Your task to perform on an android device: open a bookmark in the chrome app Image 0: 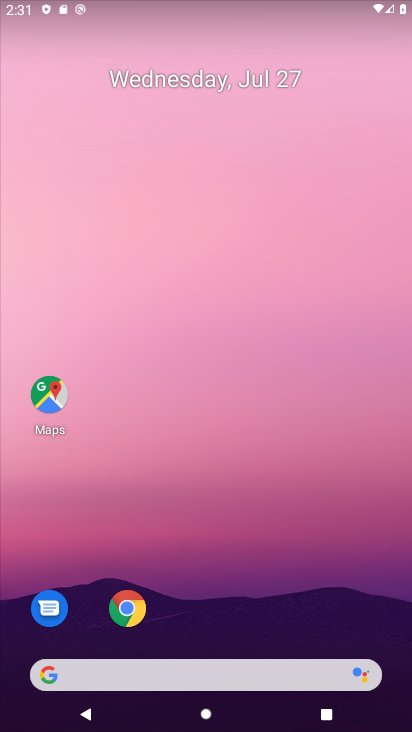
Step 0: click (124, 607)
Your task to perform on an android device: open a bookmark in the chrome app Image 1: 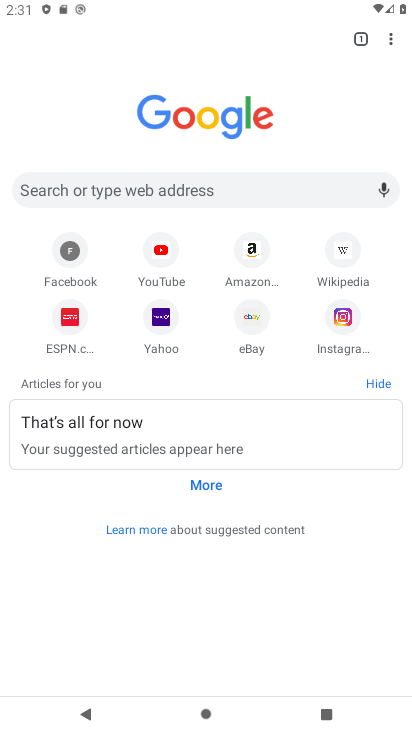
Step 1: click (392, 39)
Your task to perform on an android device: open a bookmark in the chrome app Image 2: 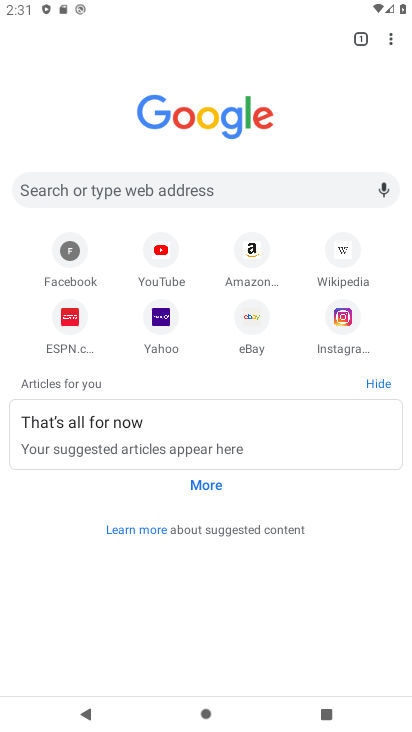
Step 2: click (389, 43)
Your task to perform on an android device: open a bookmark in the chrome app Image 3: 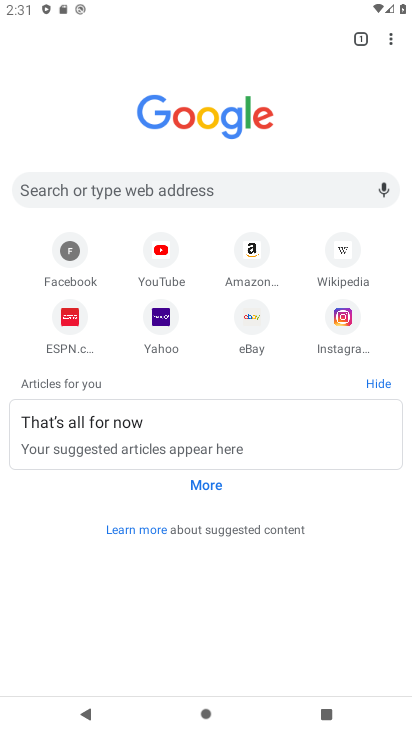
Step 3: click (386, 38)
Your task to perform on an android device: open a bookmark in the chrome app Image 4: 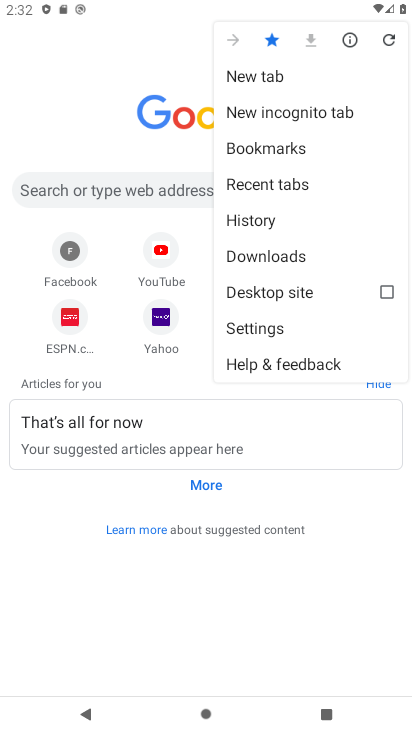
Step 4: click (263, 140)
Your task to perform on an android device: open a bookmark in the chrome app Image 5: 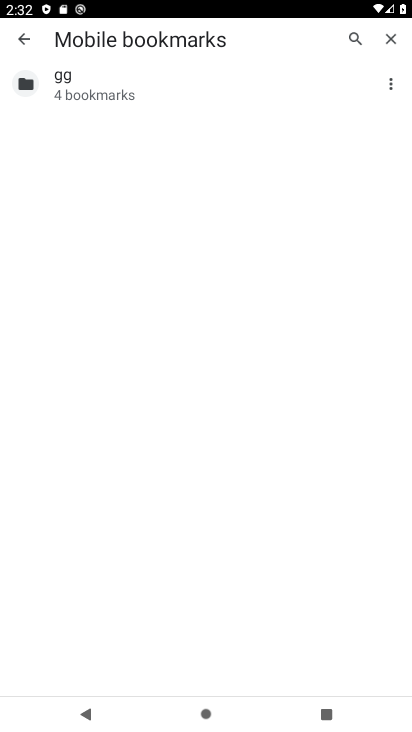
Step 5: click (110, 82)
Your task to perform on an android device: open a bookmark in the chrome app Image 6: 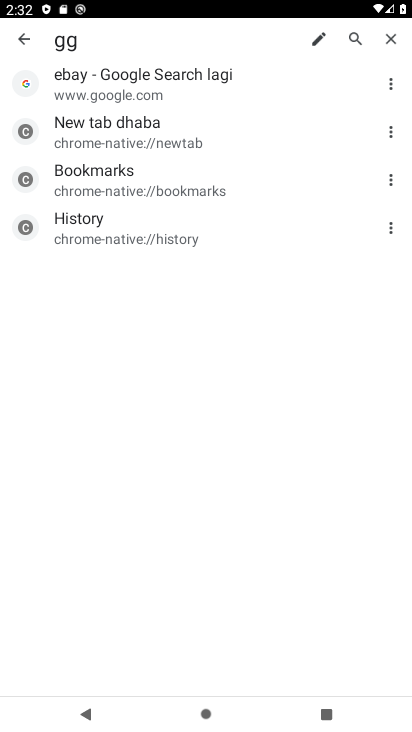
Step 6: click (86, 166)
Your task to perform on an android device: open a bookmark in the chrome app Image 7: 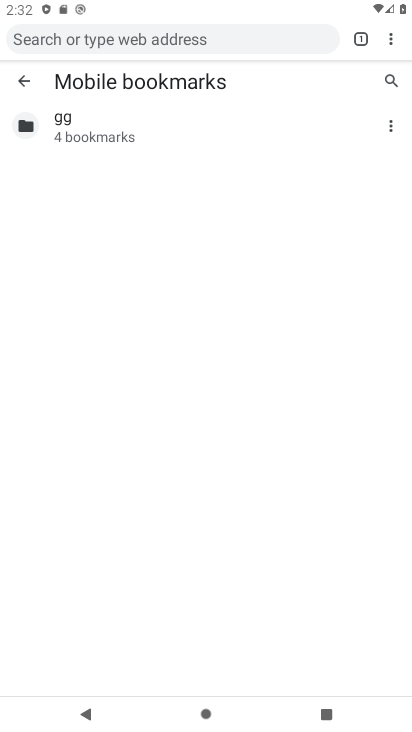
Step 7: task complete